Your task to perform on an android device: toggle location history Image 0: 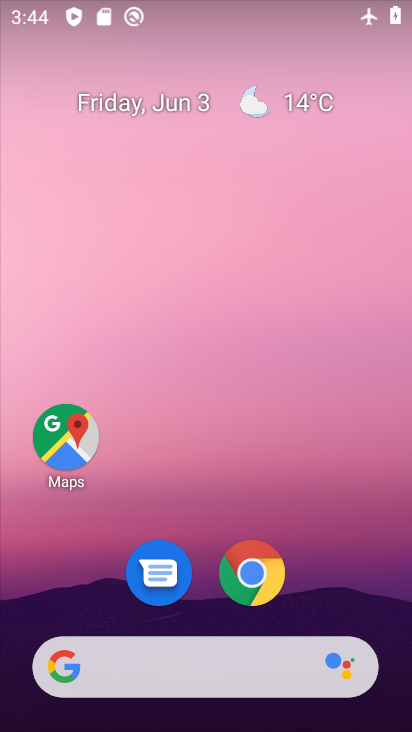
Step 0: drag from (172, 610) to (276, 2)
Your task to perform on an android device: toggle location history Image 1: 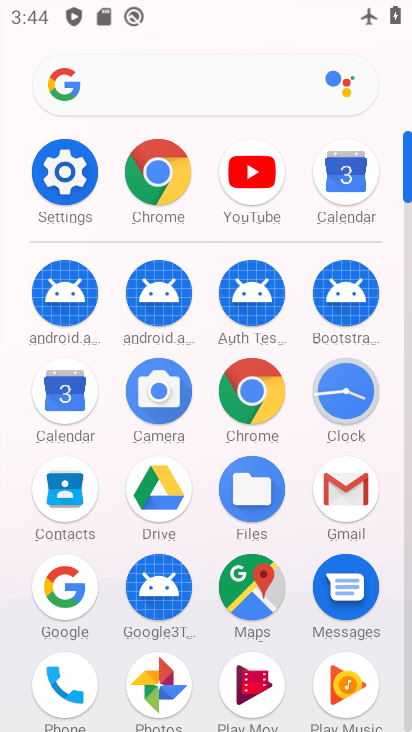
Step 1: click (74, 194)
Your task to perform on an android device: toggle location history Image 2: 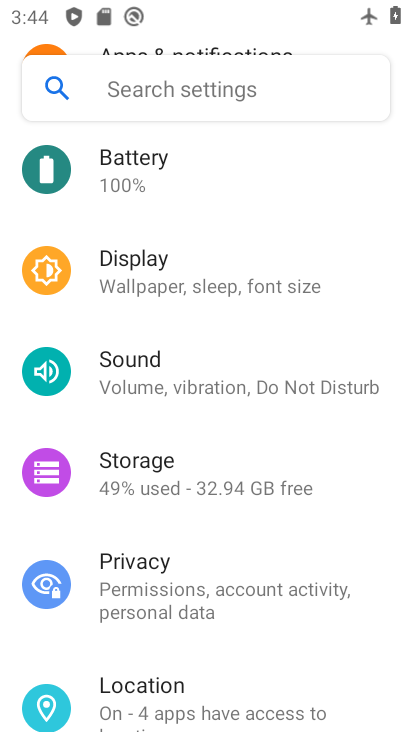
Step 2: click (289, 432)
Your task to perform on an android device: toggle location history Image 3: 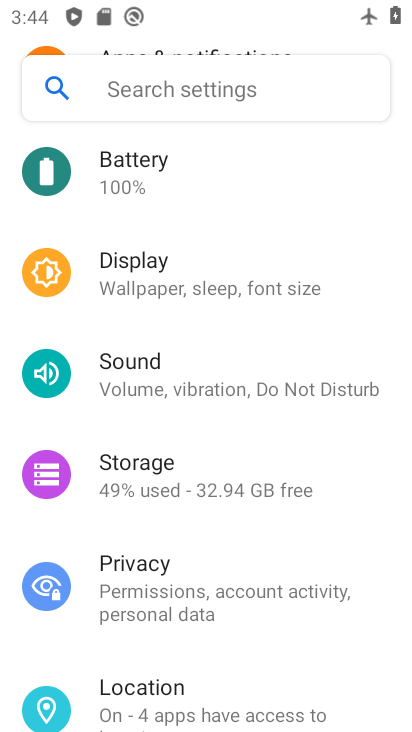
Step 3: drag from (158, 508) to (196, 243)
Your task to perform on an android device: toggle location history Image 4: 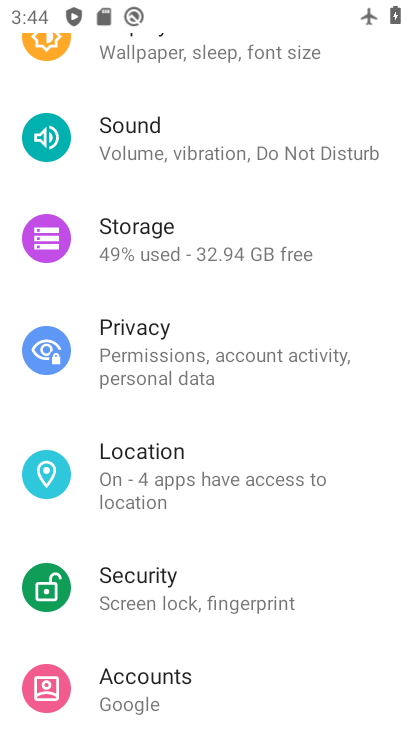
Step 4: click (272, 480)
Your task to perform on an android device: toggle location history Image 5: 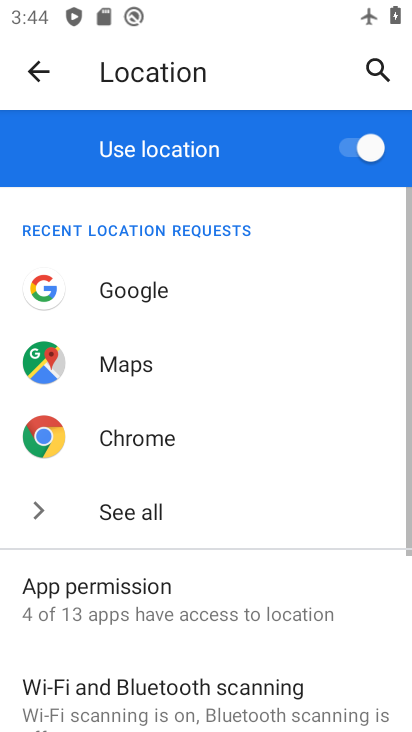
Step 5: drag from (175, 475) to (223, 150)
Your task to perform on an android device: toggle location history Image 6: 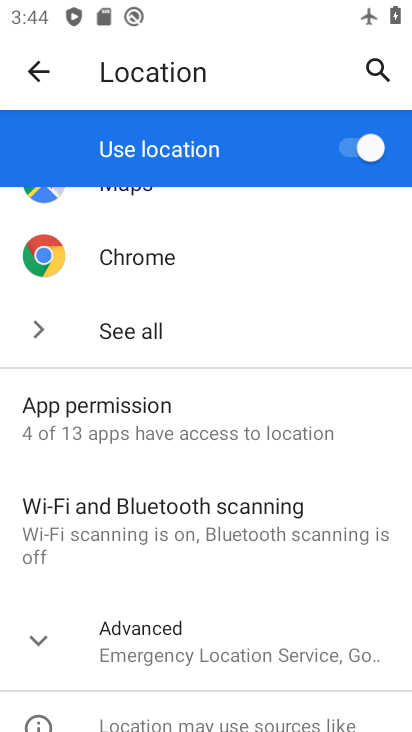
Step 6: click (107, 652)
Your task to perform on an android device: toggle location history Image 7: 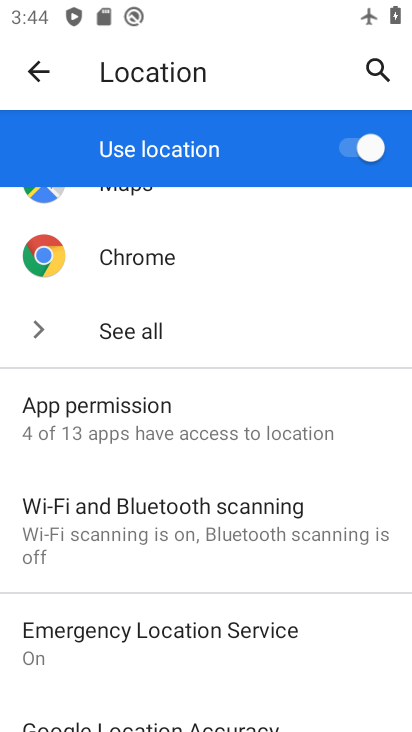
Step 7: drag from (91, 645) to (91, 375)
Your task to perform on an android device: toggle location history Image 8: 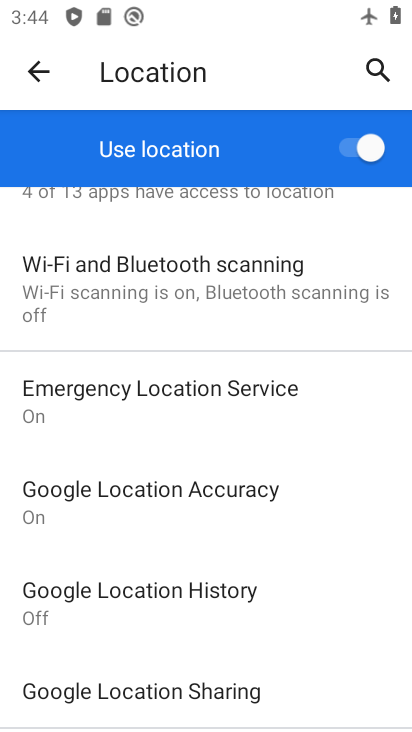
Step 8: click (199, 602)
Your task to perform on an android device: toggle location history Image 9: 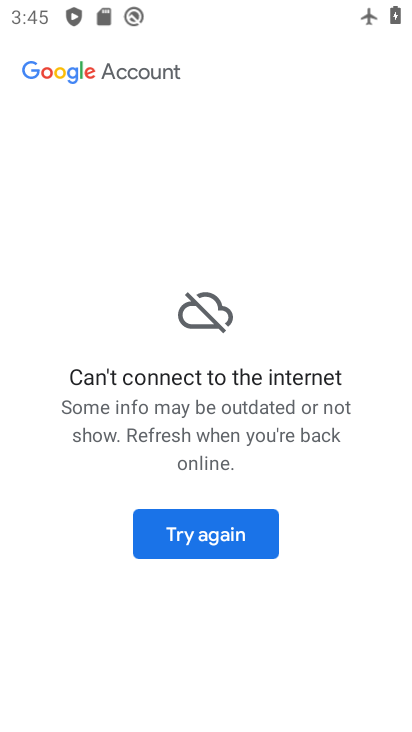
Step 9: task complete